Your task to perform on an android device: change the clock display to show seconds Image 0: 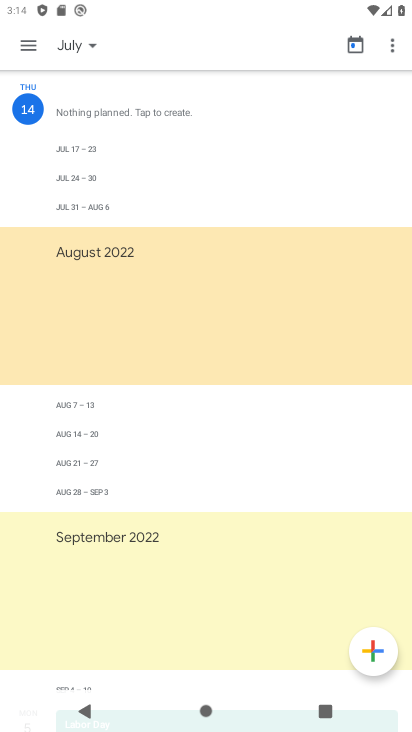
Step 0: press home button
Your task to perform on an android device: change the clock display to show seconds Image 1: 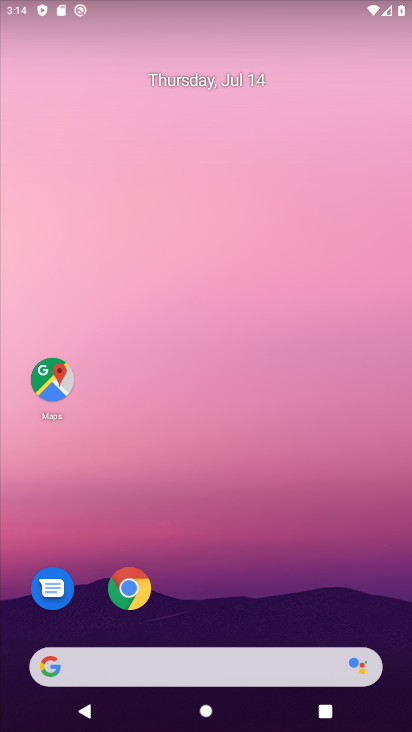
Step 1: drag from (274, 520) to (295, 7)
Your task to perform on an android device: change the clock display to show seconds Image 2: 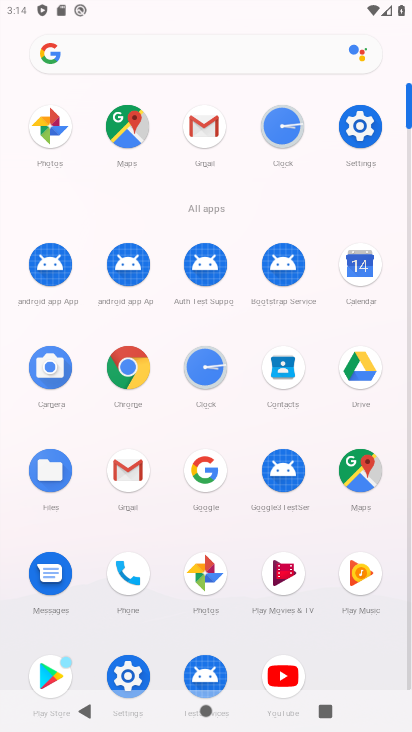
Step 2: click (280, 130)
Your task to perform on an android device: change the clock display to show seconds Image 3: 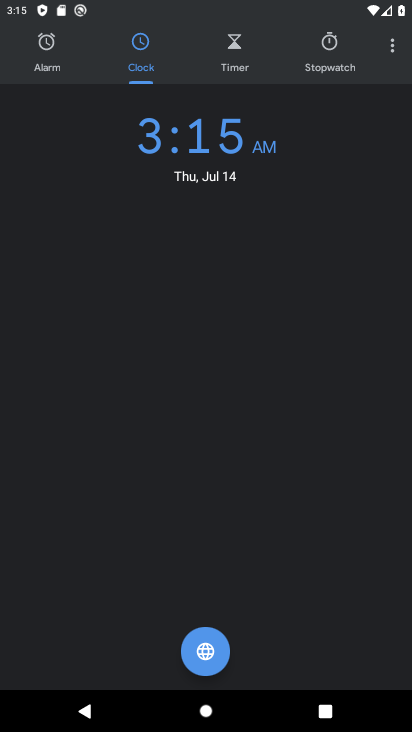
Step 3: click (397, 54)
Your task to perform on an android device: change the clock display to show seconds Image 4: 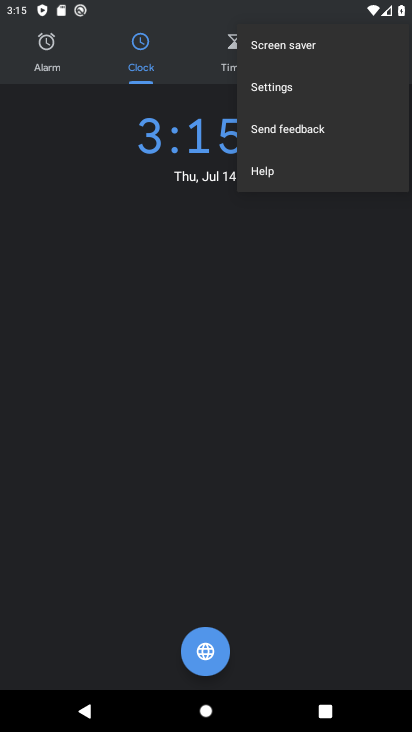
Step 4: click (269, 89)
Your task to perform on an android device: change the clock display to show seconds Image 5: 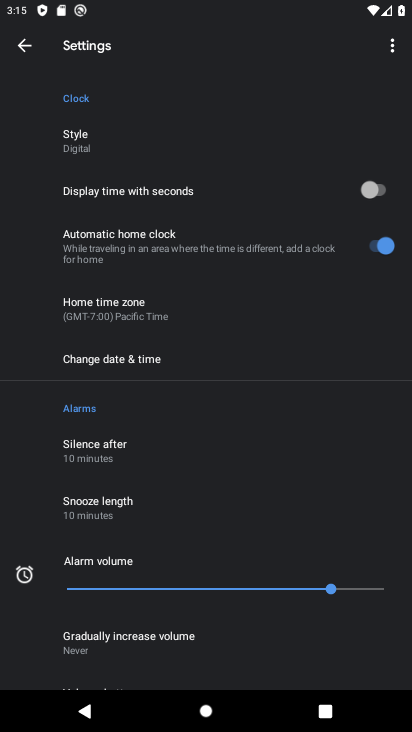
Step 5: click (387, 177)
Your task to perform on an android device: change the clock display to show seconds Image 6: 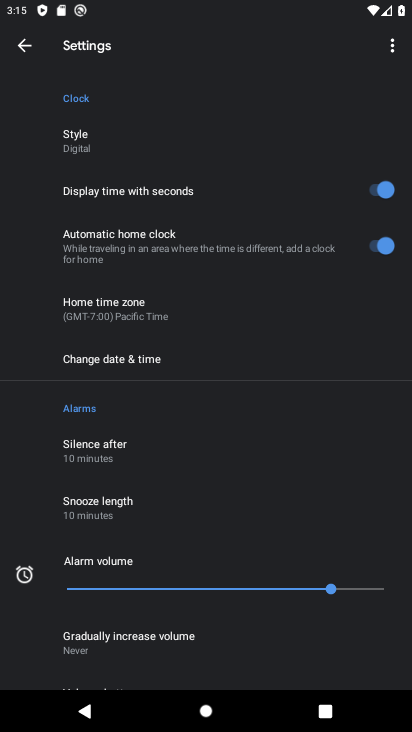
Step 6: task complete